Your task to perform on an android device: add a contact Image 0: 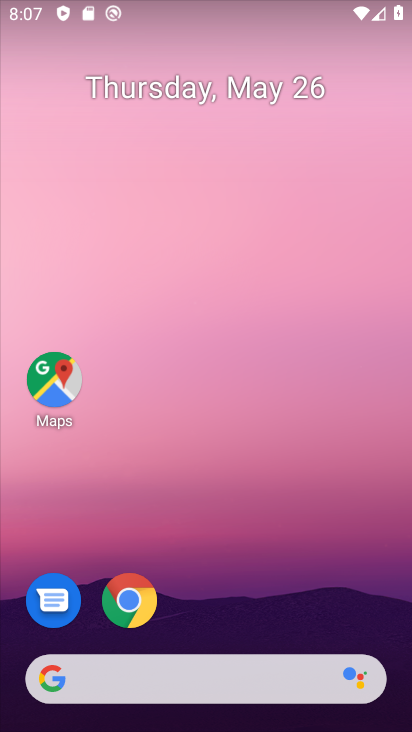
Step 0: drag from (232, 616) to (259, 38)
Your task to perform on an android device: add a contact Image 1: 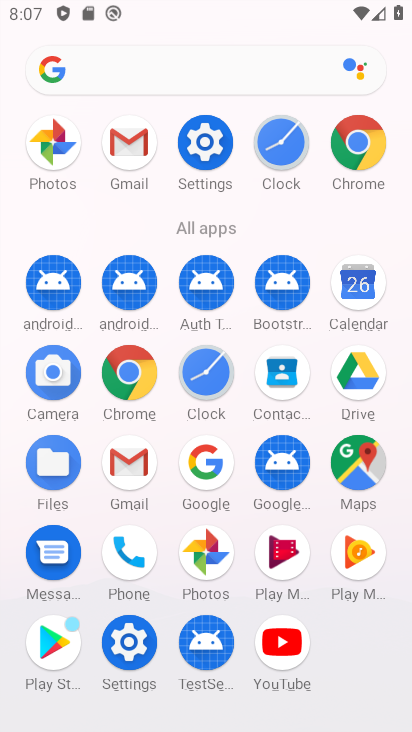
Step 1: click (284, 370)
Your task to perform on an android device: add a contact Image 2: 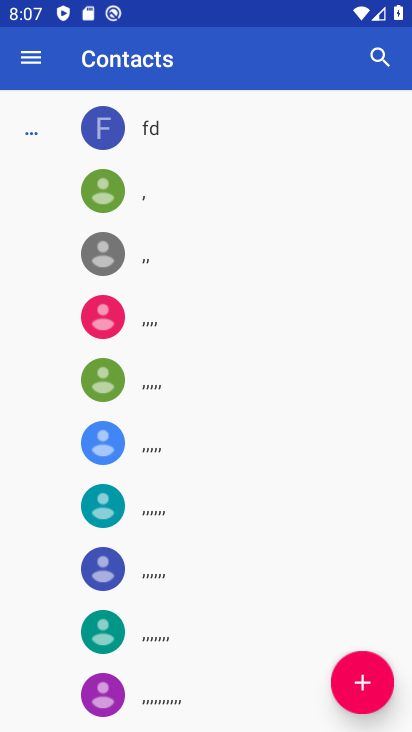
Step 2: click (355, 694)
Your task to perform on an android device: add a contact Image 3: 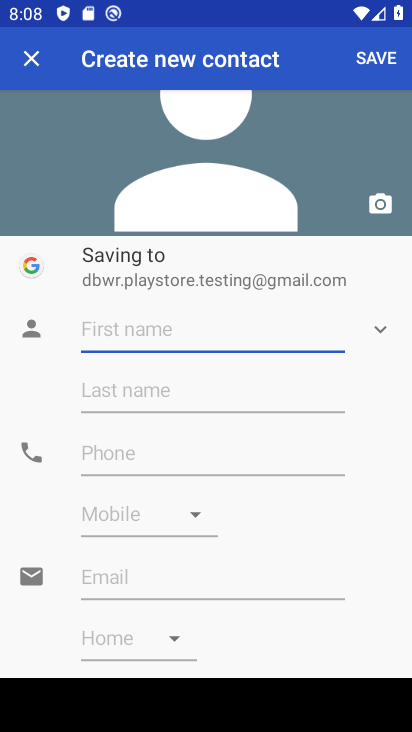
Step 3: type "oijhgbvcvb"
Your task to perform on an android device: add a contact Image 4: 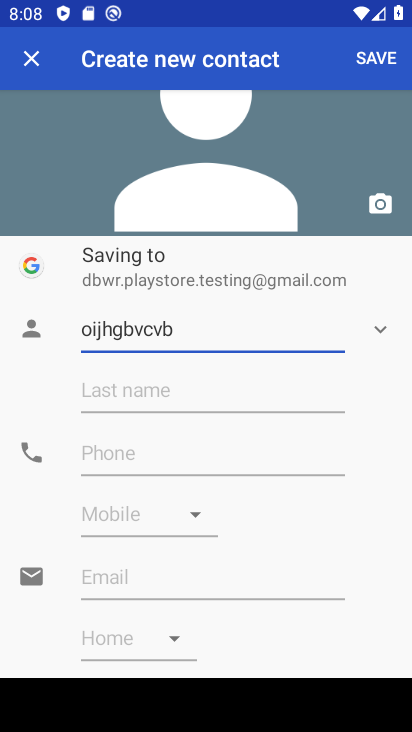
Step 4: type "098765432"
Your task to perform on an android device: add a contact Image 5: 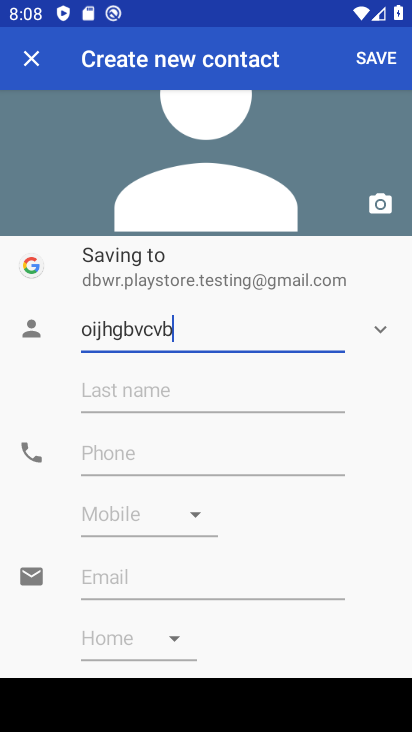
Step 5: click (379, 48)
Your task to perform on an android device: add a contact Image 6: 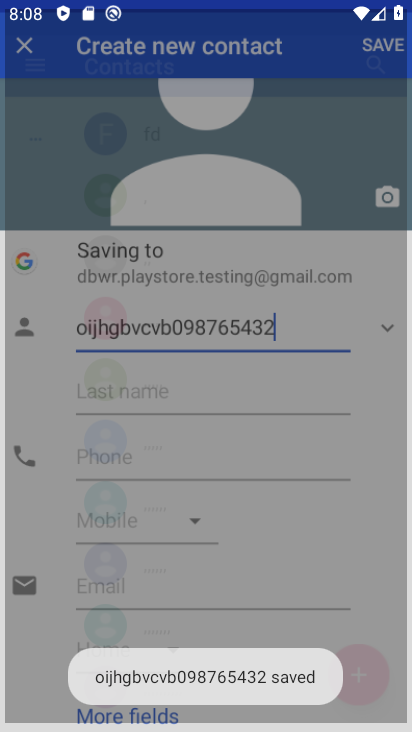
Step 6: click (223, 466)
Your task to perform on an android device: add a contact Image 7: 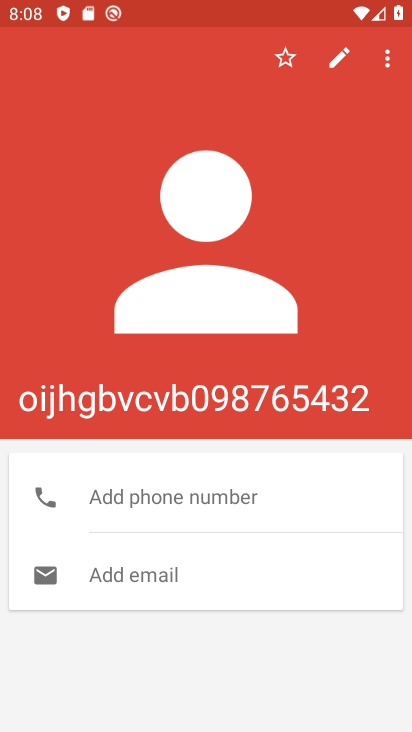
Step 7: task complete